Your task to perform on an android device: See recent photos Image 0: 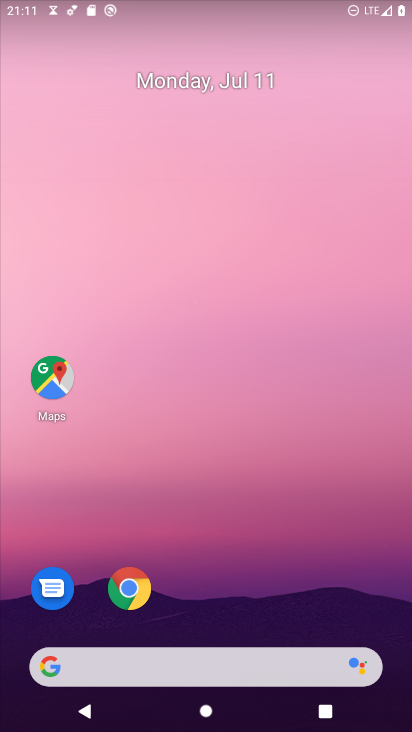
Step 0: press home button
Your task to perform on an android device: See recent photos Image 1: 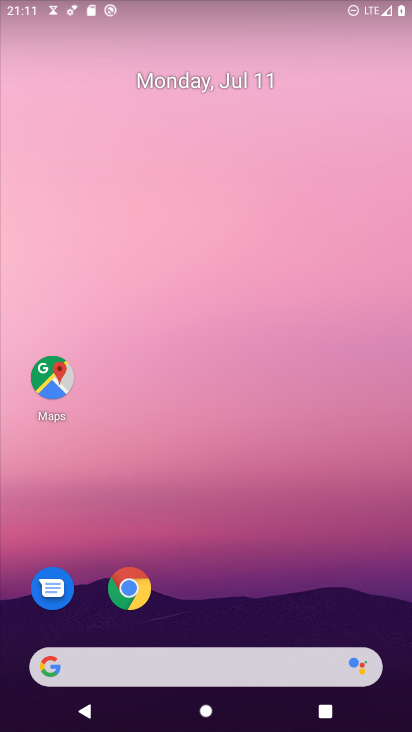
Step 1: drag from (208, 606) to (212, 151)
Your task to perform on an android device: See recent photos Image 2: 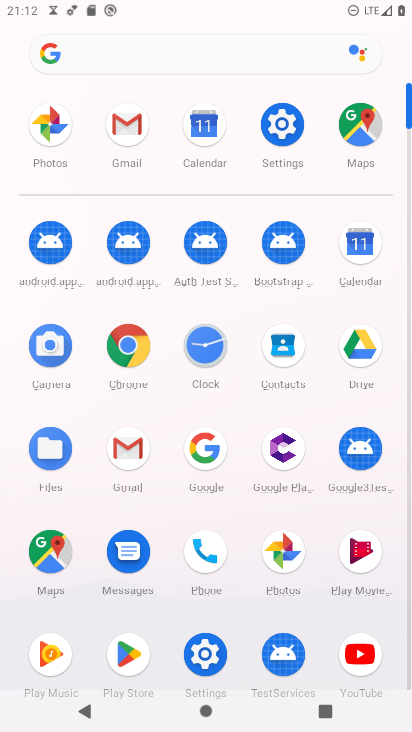
Step 2: click (284, 553)
Your task to perform on an android device: See recent photos Image 3: 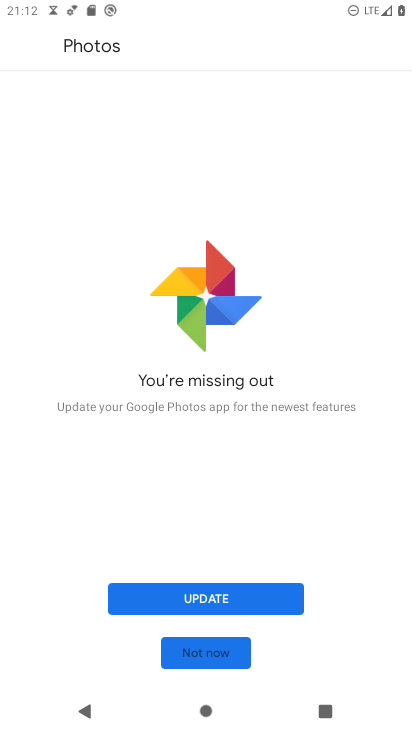
Step 3: click (196, 603)
Your task to perform on an android device: See recent photos Image 4: 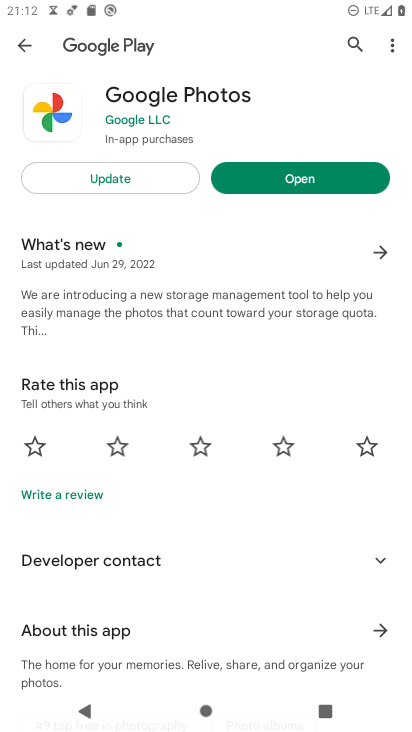
Step 4: click (94, 182)
Your task to perform on an android device: See recent photos Image 5: 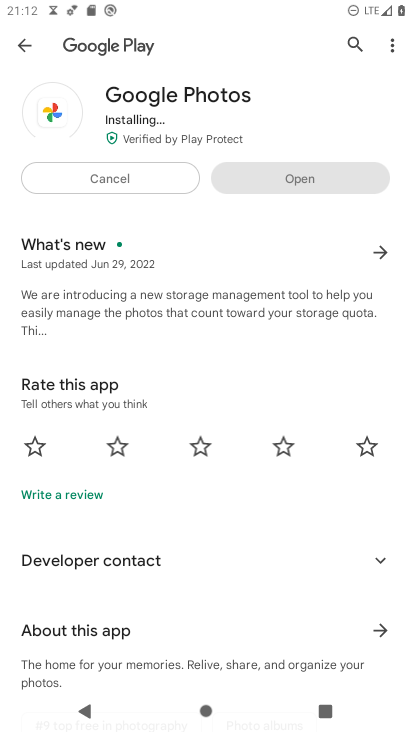
Step 5: click (252, 186)
Your task to perform on an android device: See recent photos Image 6: 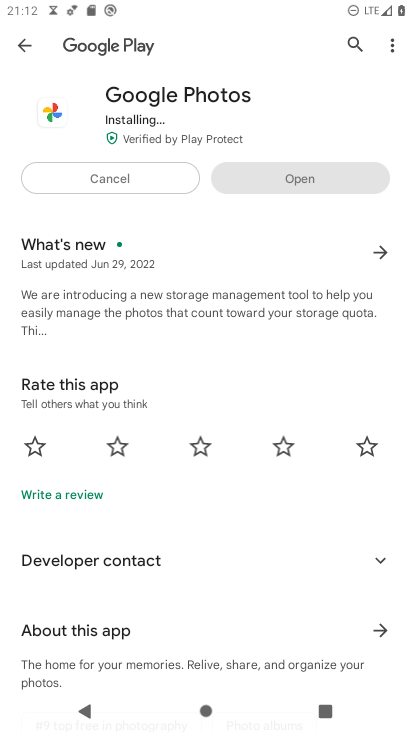
Step 6: click (245, 182)
Your task to perform on an android device: See recent photos Image 7: 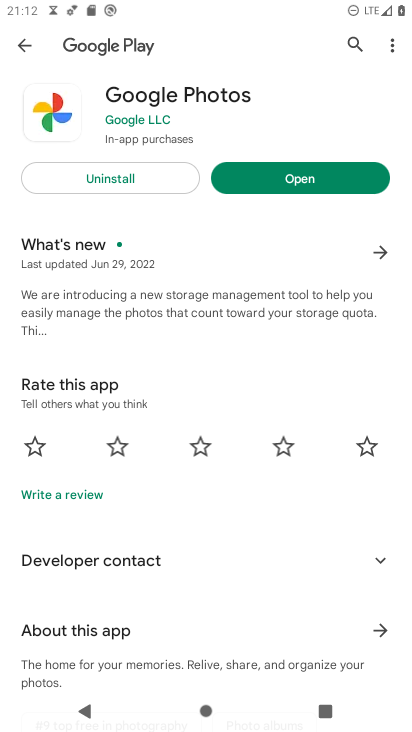
Step 7: click (245, 182)
Your task to perform on an android device: See recent photos Image 8: 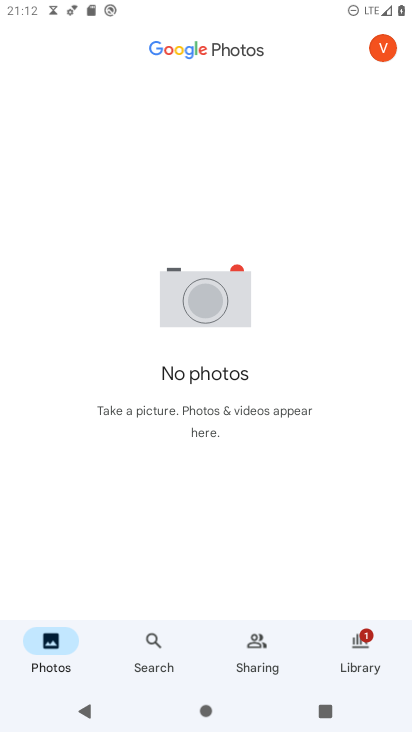
Step 8: task complete